Your task to perform on an android device: turn pop-ups off in chrome Image 0: 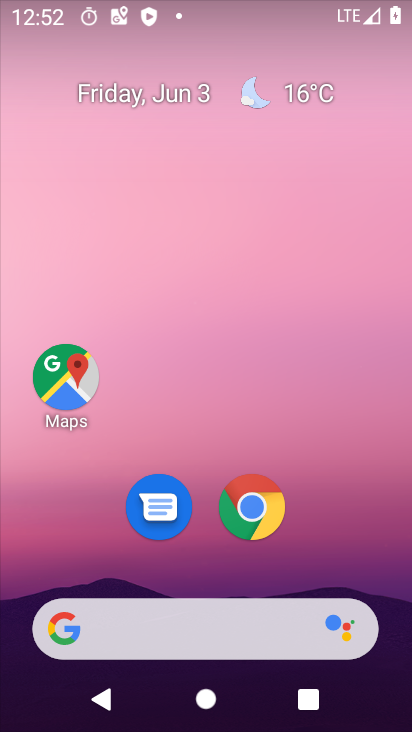
Step 0: drag from (389, 645) to (258, 85)
Your task to perform on an android device: turn pop-ups off in chrome Image 1: 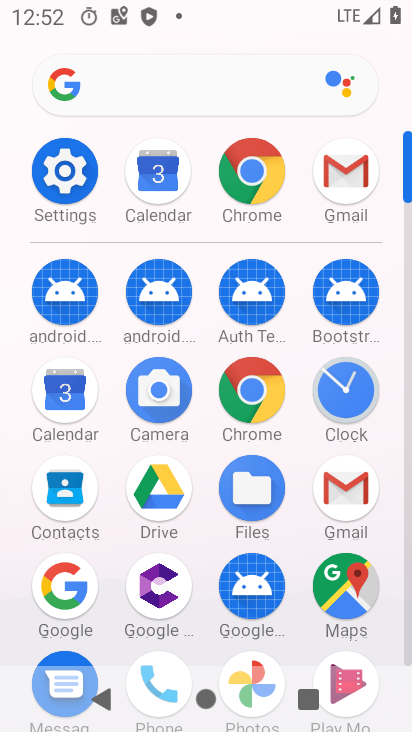
Step 1: click (257, 164)
Your task to perform on an android device: turn pop-ups off in chrome Image 2: 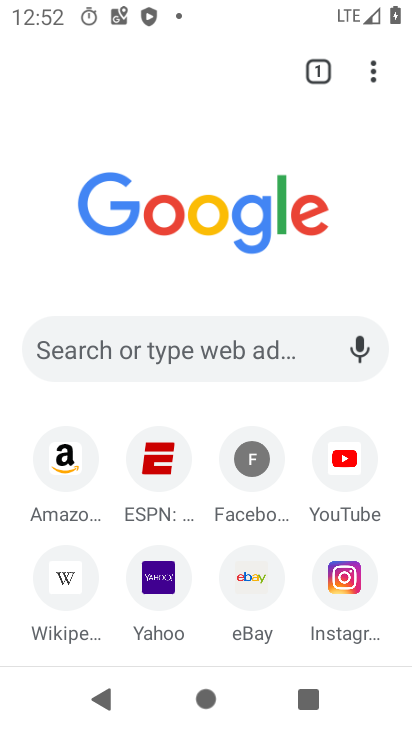
Step 2: click (378, 66)
Your task to perform on an android device: turn pop-ups off in chrome Image 3: 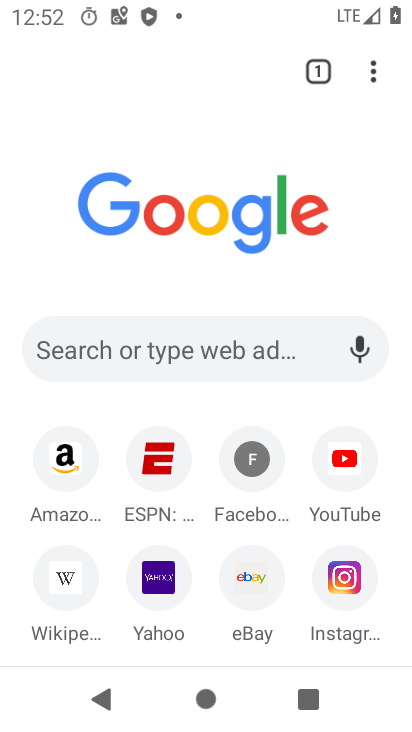
Step 3: click (371, 62)
Your task to perform on an android device: turn pop-ups off in chrome Image 4: 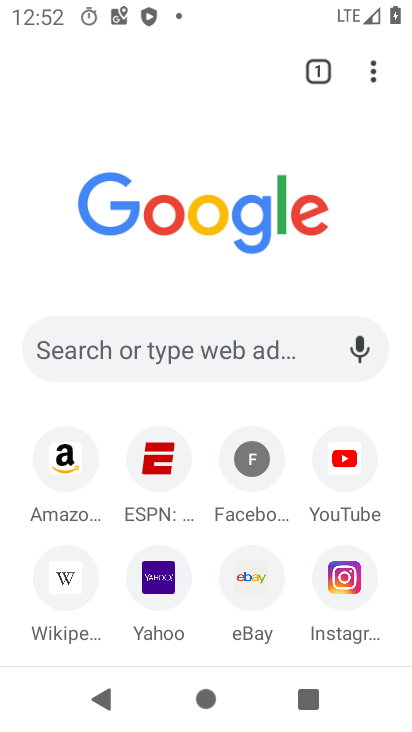
Step 4: click (373, 74)
Your task to perform on an android device: turn pop-ups off in chrome Image 5: 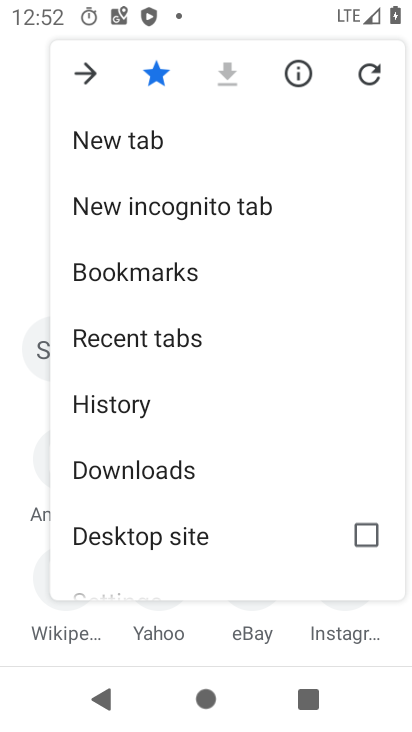
Step 5: drag from (147, 520) to (188, 118)
Your task to perform on an android device: turn pop-ups off in chrome Image 6: 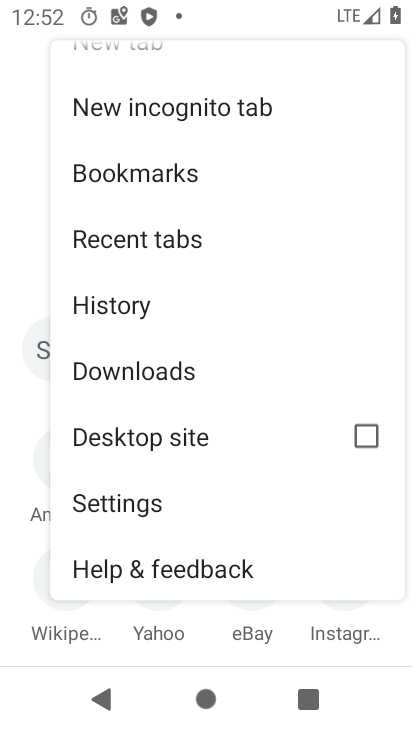
Step 6: click (157, 513)
Your task to perform on an android device: turn pop-ups off in chrome Image 7: 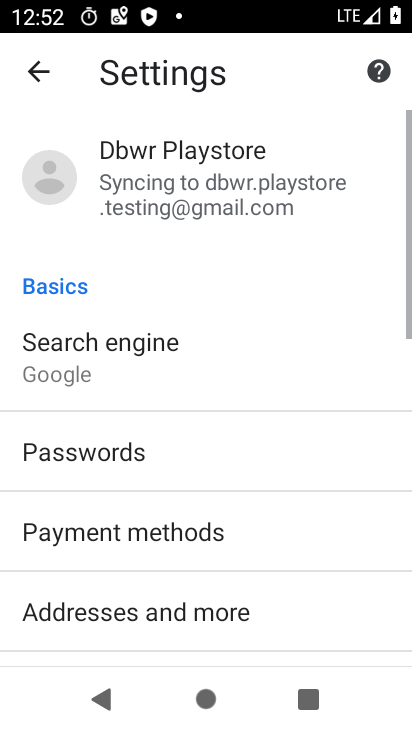
Step 7: drag from (184, 587) to (208, 131)
Your task to perform on an android device: turn pop-ups off in chrome Image 8: 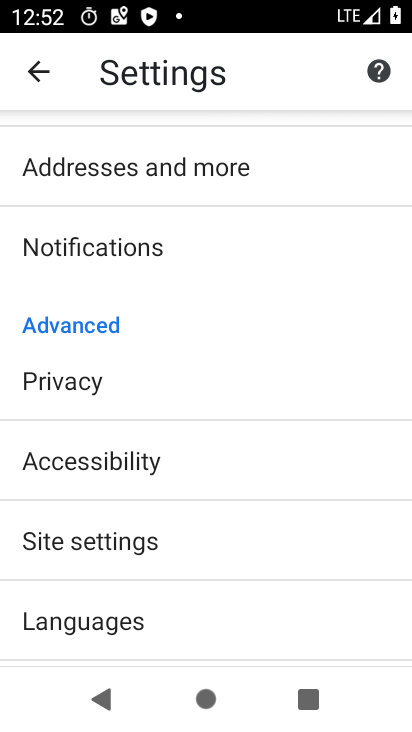
Step 8: click (182, 536)
Your task to perform on an android device: turn pop-ups off in chrome Image 9: 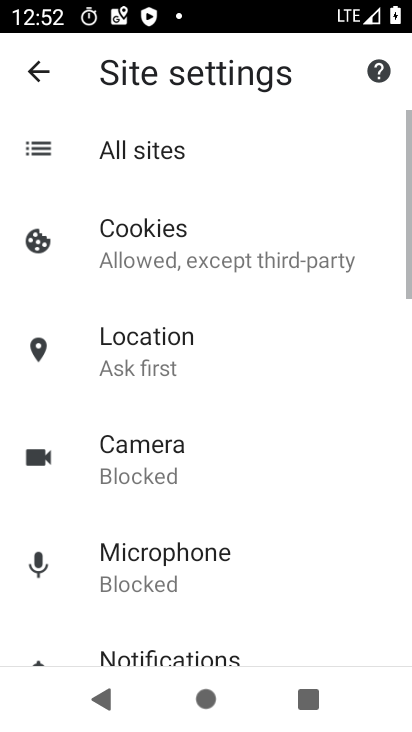
Step 9: drag from (214, 564) to (225, 185)
Your task to perform on an android device: turn pop-ups off in chrome Image 10: 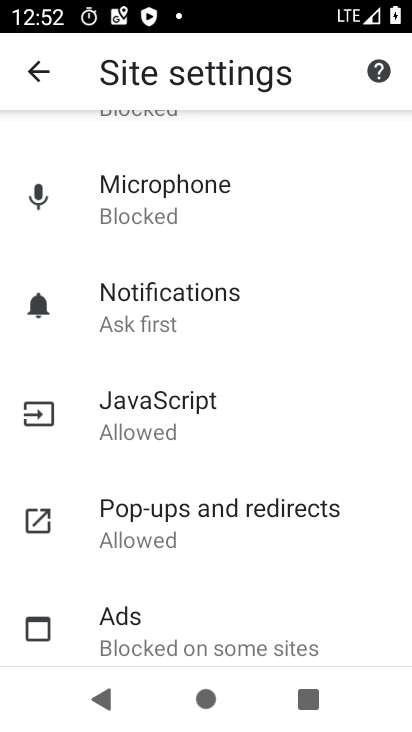
Step 10: click (211, 531)
Your task to perform on an android device: turn pop-ups off in chrome Image 11: 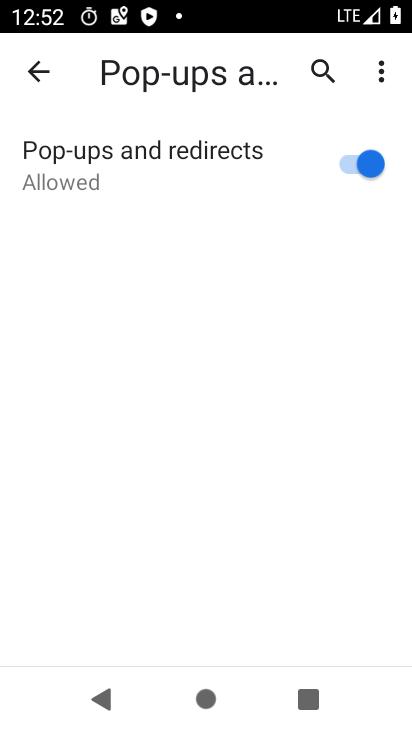
Step 11: click (351, 159)
Your task to perform on an android device: turn pop-ups off in chrome Image 12: 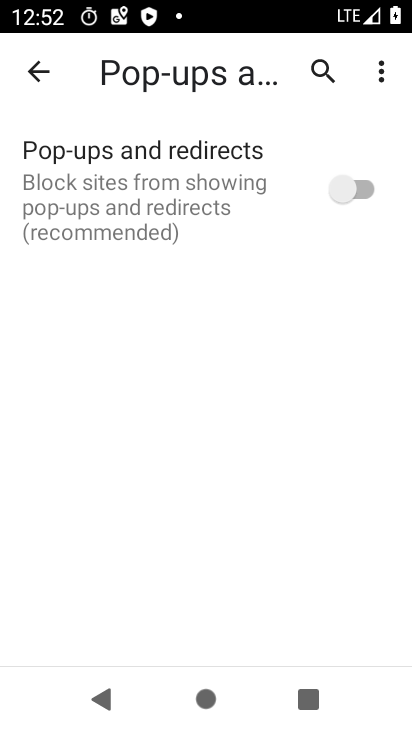
Step 12: task complete